Your task to perform on an android device: Open Yahoo.com Image 0: 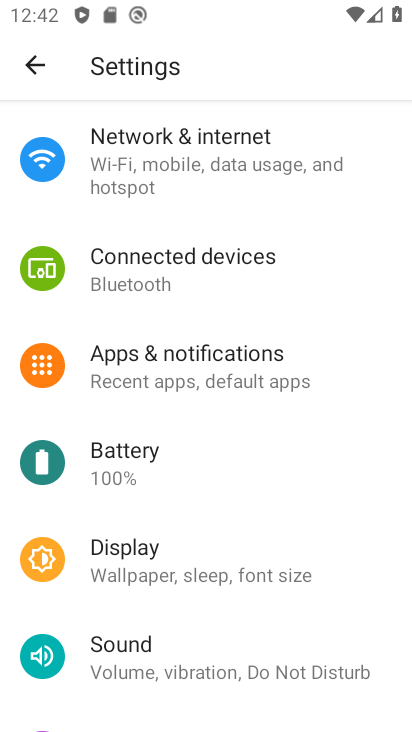
Step 0: press home button
Your task to perform on an android device: Open Yahoo.com Image 1: 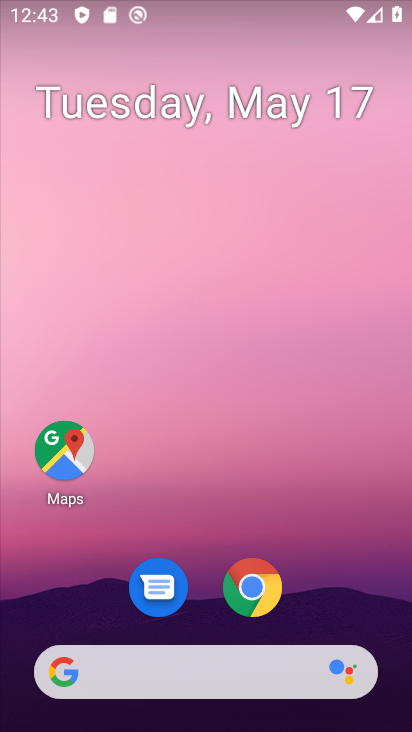
Step 1: click (253, 600)
Your task to perform on an android device: Open Yahoo.com Image 2: 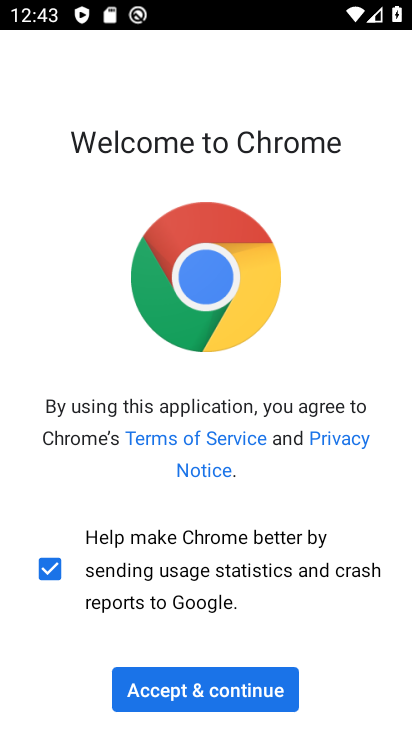
Step 2: click (210, 688)
Your task to perform on an android device: Open Yahoo.com Image 3: 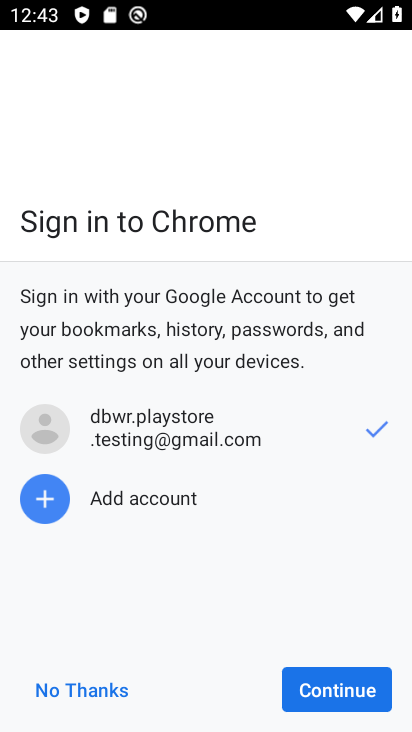
Step 3: click (349, 691)
Your task to perform on an android device: Open Yahoo.com Image 4: 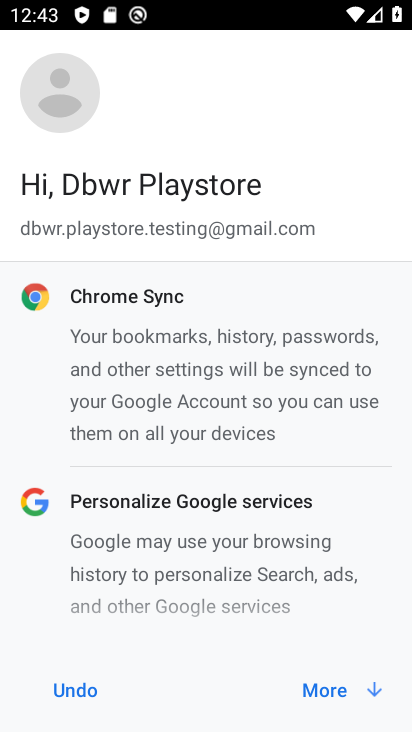
Step 4: click (349, 691)
Your task to perform on an android device: Open Yahoo.com Image 5: 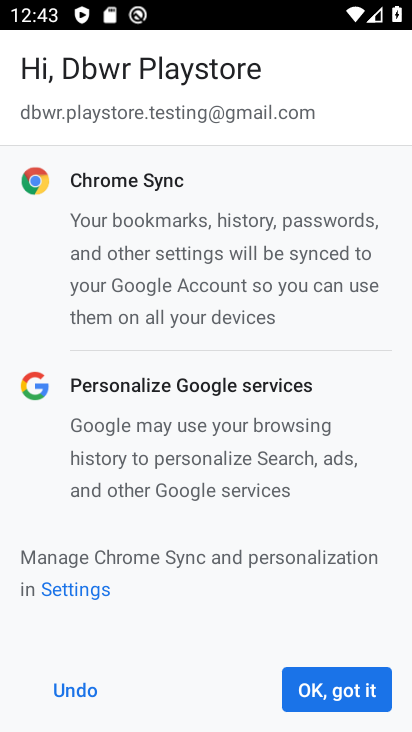
Step 5: click (349, 691)
Your task to perform on an android device: Open Yahoo.com Image 6: 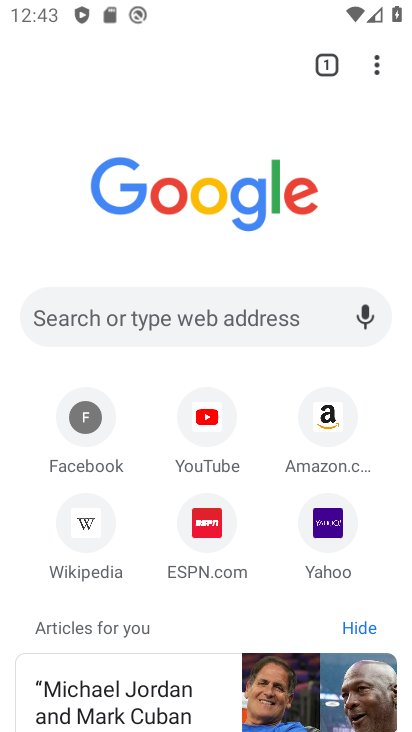
Step 6: click (309, 541)
Your task to perform on an android device: Open Yahoo.com Image 7: 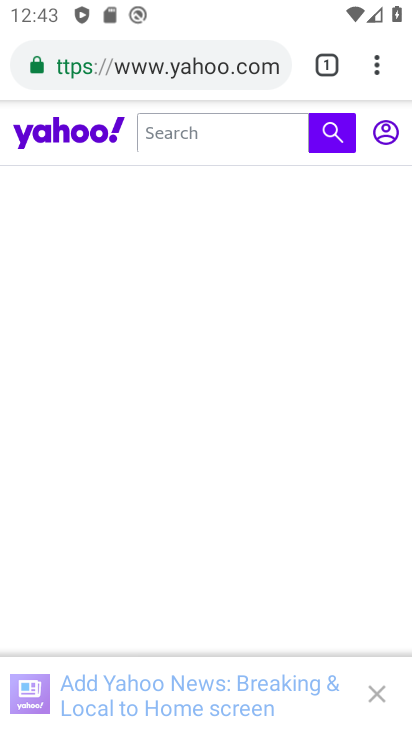
Step 7: task complete